Your task to perform on an android device: Show me the alarms in the clock app Image 0: 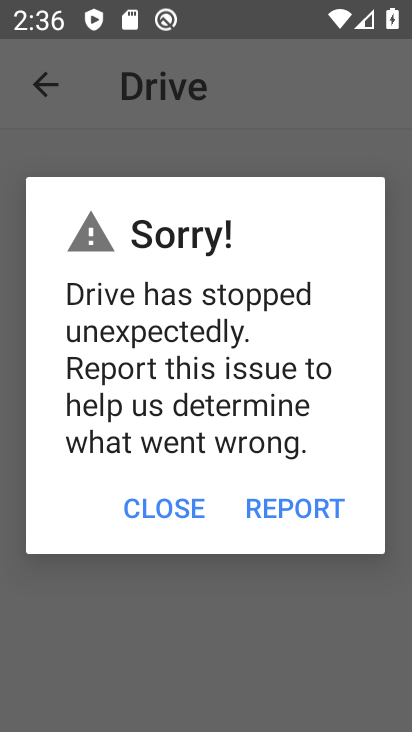
Step 0: drag from (296, 698) to (356, 553)
Your task to perform on an android device: Show me the alarms in the clock app Image 1: 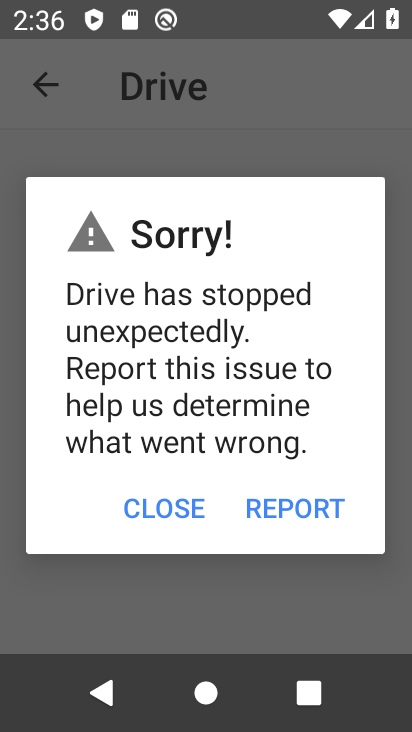
Step 1: press home button
Your task to perform on an android device: Show me the alarms in the clock app Image 2: 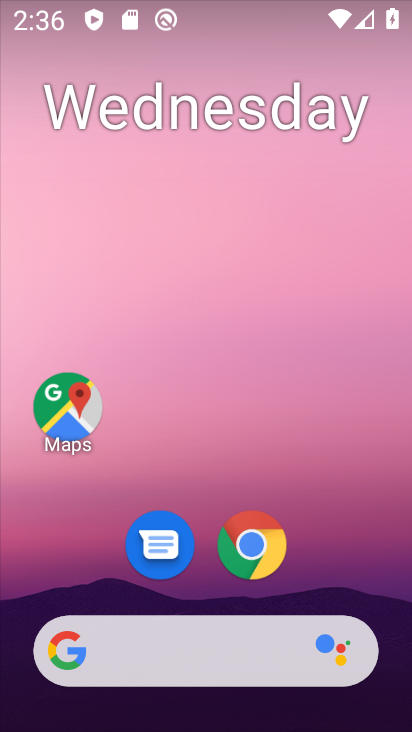
Step 2: drag from (244, 668) to (216, 88)
Your task to perform on an android device: Show me the alarms in the clock app Image 3: 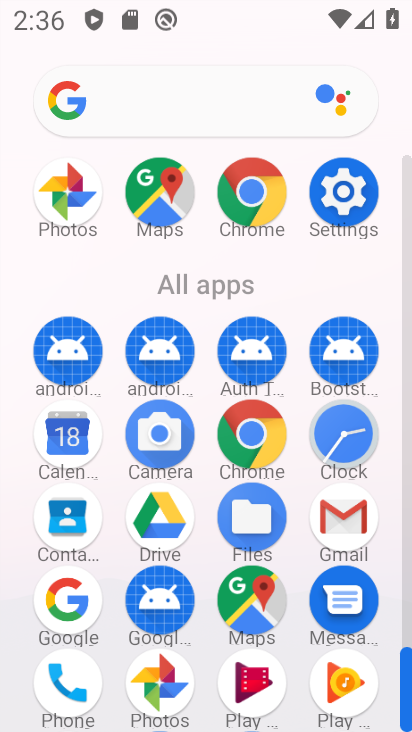
Step 3: click (357, 437)
Your task to perform on an android device: Show me the alarms in the clock app Image 4: 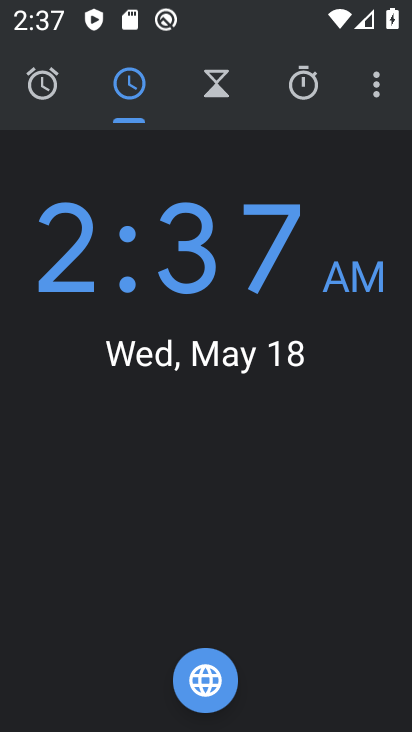
Step 4: click (45, 99)
Your task to perform on an android device: Show me the alarms in the clock app Image 5: 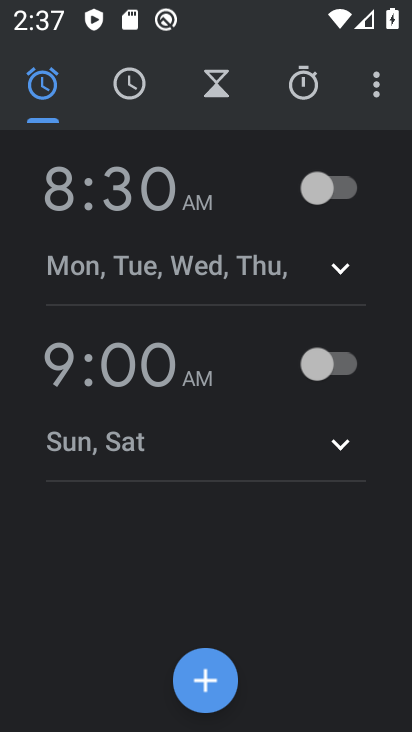
Step 5: task complete